Your task to perform on an android device: manage bookmarks in the chrome app Image 0: 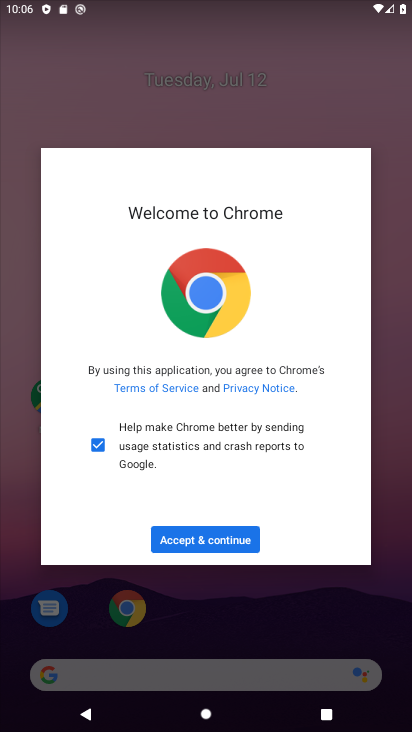
Step 0: click (194, 541)
Your task to perform on an android device: manage bookmarks in the chrome app Image 1: 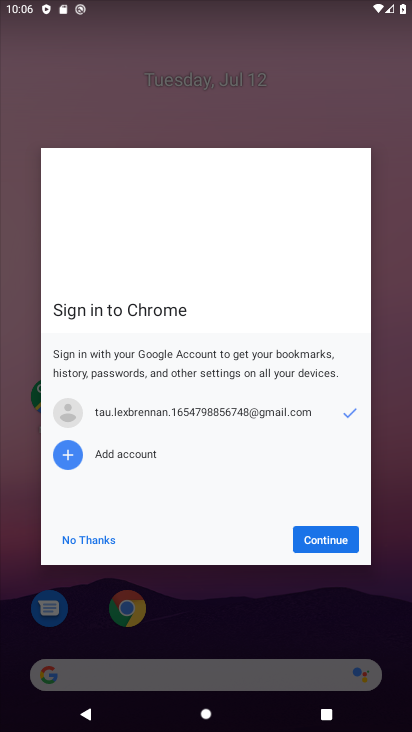
Step 1: click (337, 540)
Your task to perform on an android device: manage bookmarks in the chrome app Image 2: 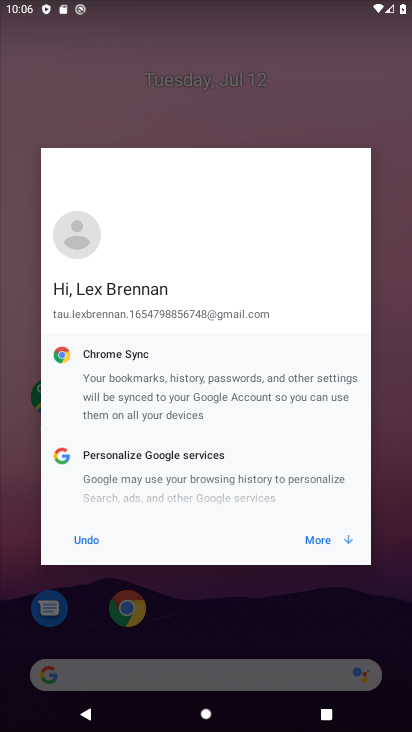
Step 2: click (337, 540)
Your task to perform on an android device: manage bookmarks in the chrome app Image 3: 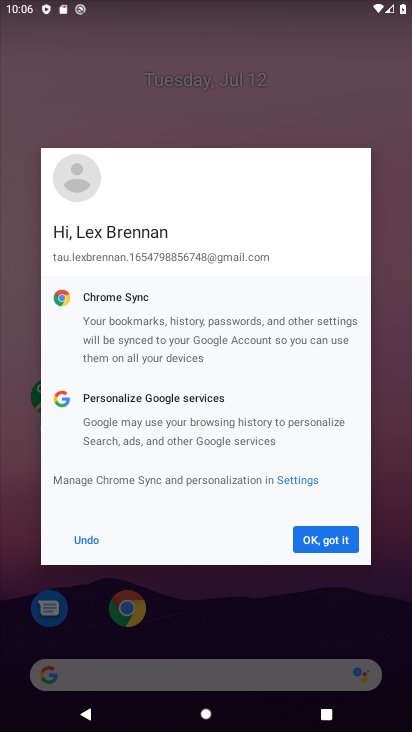
Step 3: click (337, 540)
Your task to perform on an android device: manage bookmarks in the chrome app Image 4: 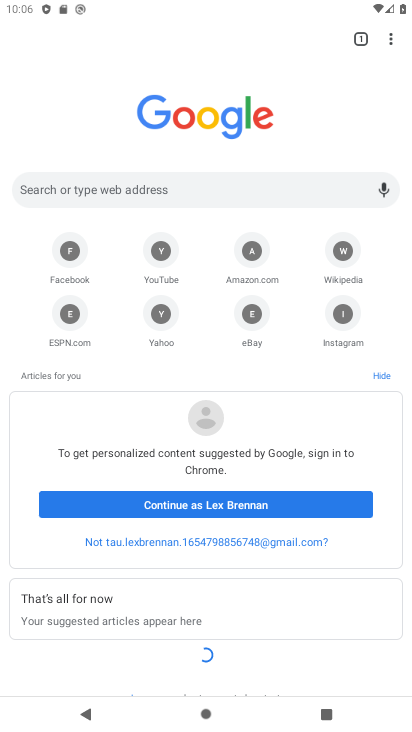
Step 4: click (389, 41)
Your task to perform on an android device: manage bookmarks in the chrome app Image 5: 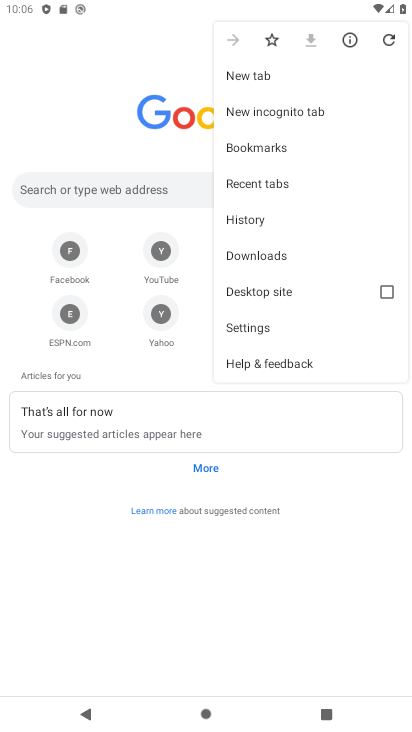
Step 5: click (278, 153)
Your task to perform on an android device: manage bookmarks in the chrome app Image 6: 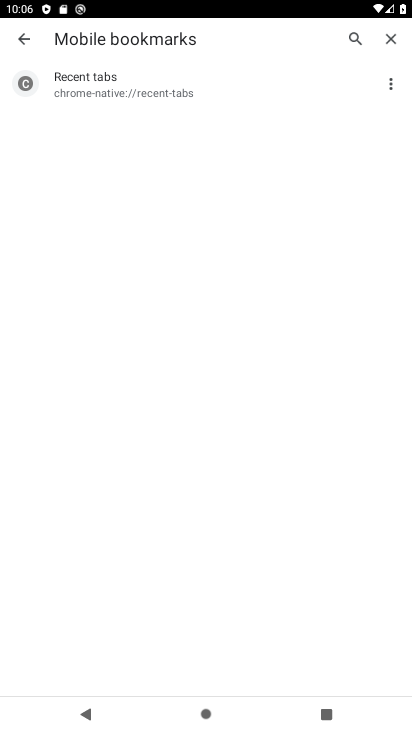
Step 6: click (386, 82)
Your task to perform on an android device: manage bookmarks in the chrome app Image 7: 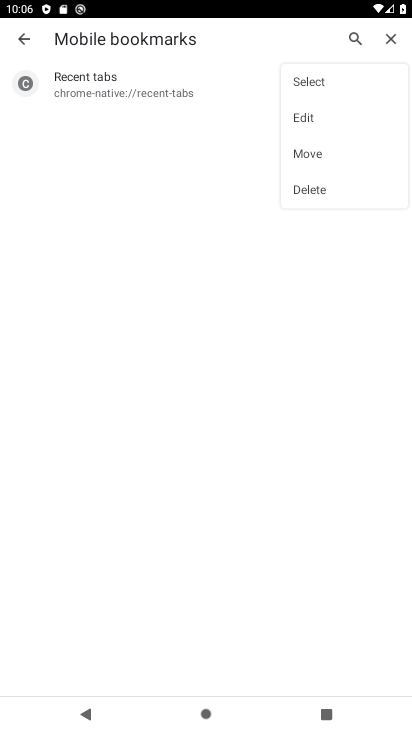
Step 7: click (355, 188)
Your task to perform on an android device: manage bookmarks in the chrome app Image 8: 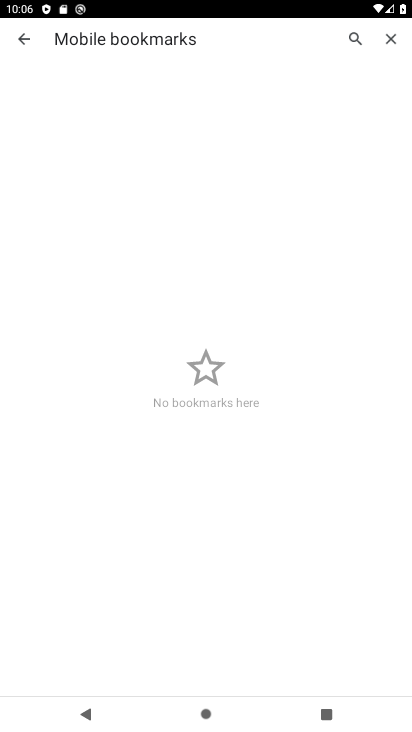
Step 8: task complete